Your task to perform on an android device: Search for Italian restaurants on Maps Image 0: 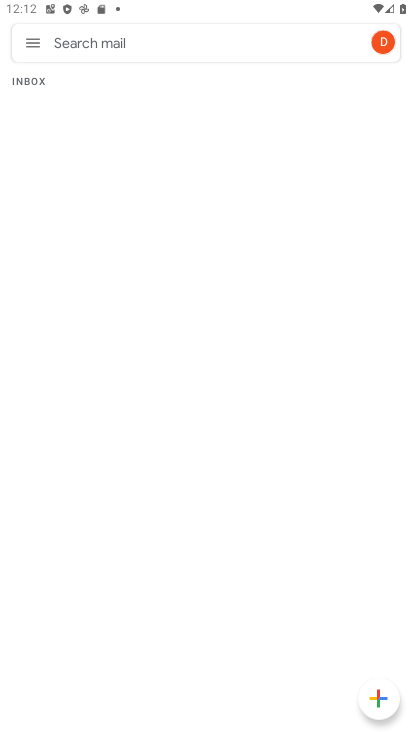
Step 0: press home button
Your task to perform on an android device: Search for Italian restaurants on Maps Image 1: 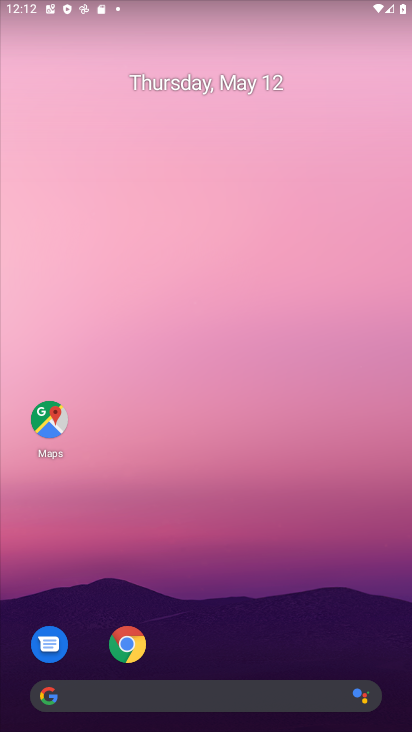
Step 1: click (37, 431)
Your task to perform on an android device: Search for Italian restaurants on Maps Image 2: 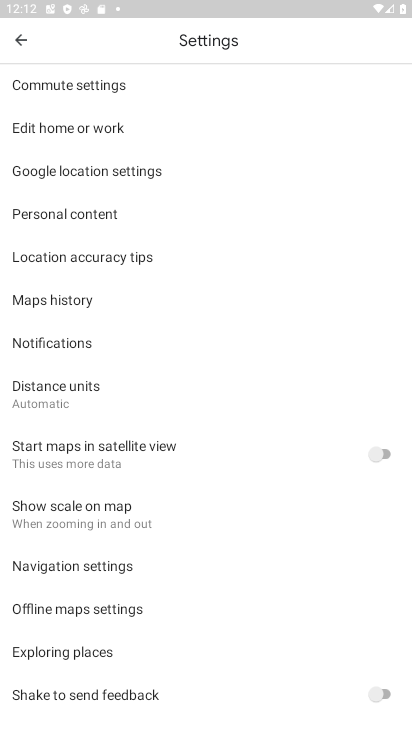
Step 2: click (14, 49)
Your task to perform on an android device: Search for Italian restaurants on Maps Image 3: 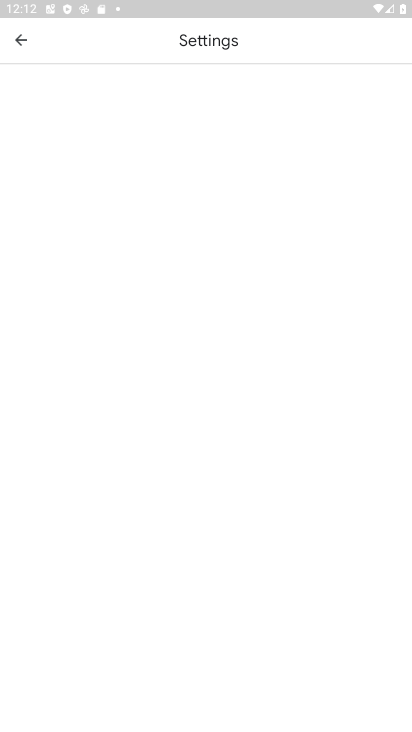
Step 3: click (14, 49)
Your task to perform on an android device: Search for Italian restaurants on Maps Image 4: 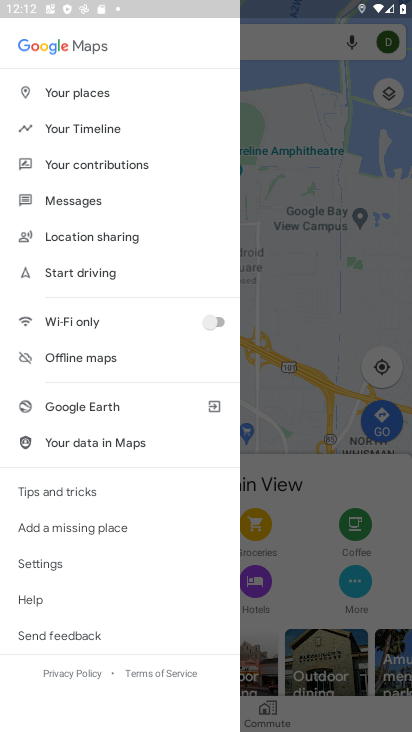
Step 4: click (262, 45)
Your task to perform on an android device: Search for Italian restaurants on Maps Image 5: 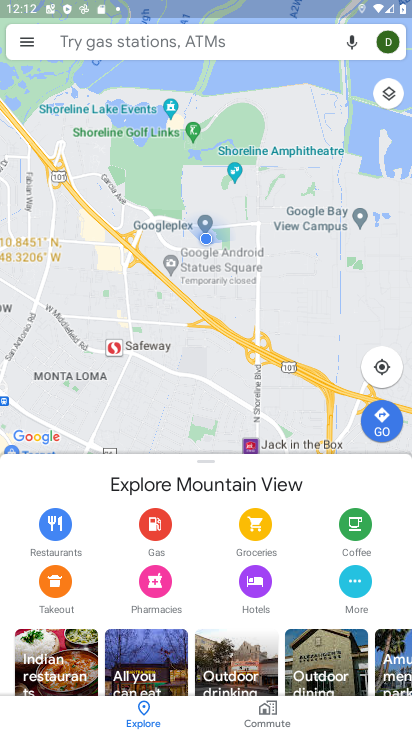
Step 5: click (262, 45)
Your task to perform on an android device: Search for Italian restaurants on Maps Image 6: 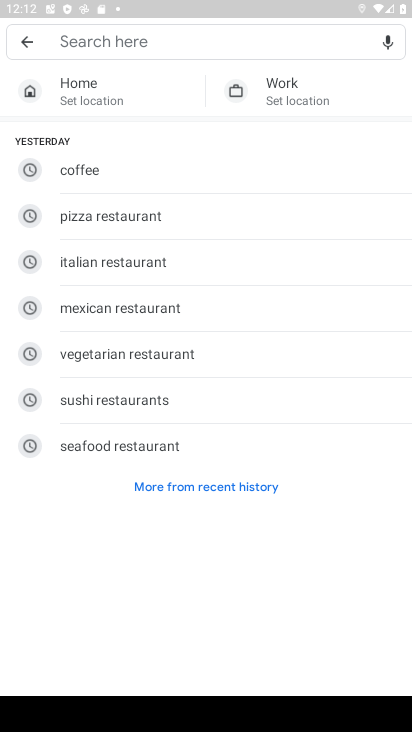
Step 6: click (193, 259)
Your task to perform on an android device: Search for Italian restaurants on Maps Image 7: 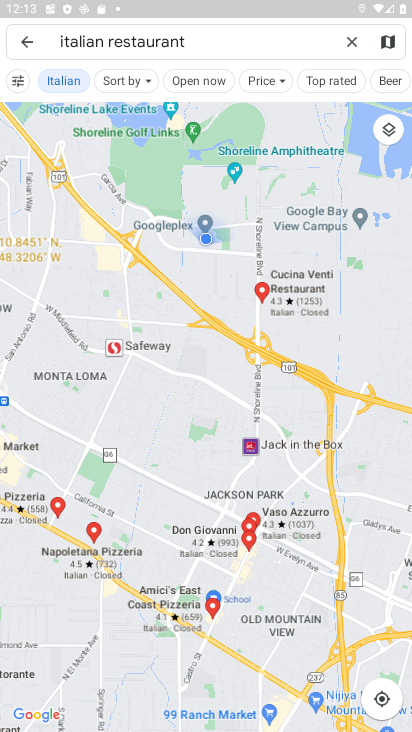
Step 7: task complete